Your task to perform on an android device: Go to Amazon Image 0: 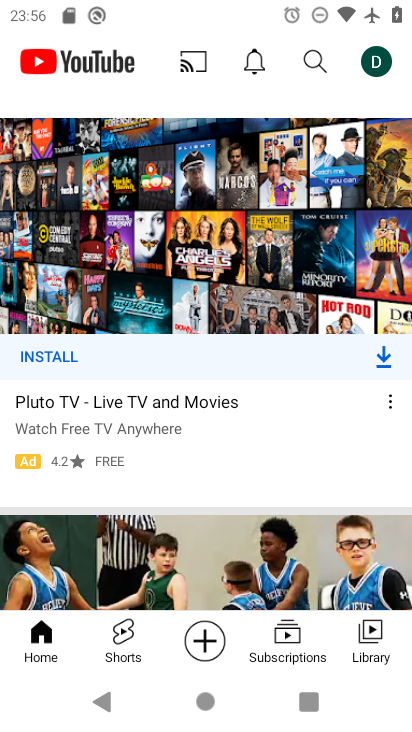
Step 0: press home button
Your task to perform on an android device: Go to Amazon Image 1: 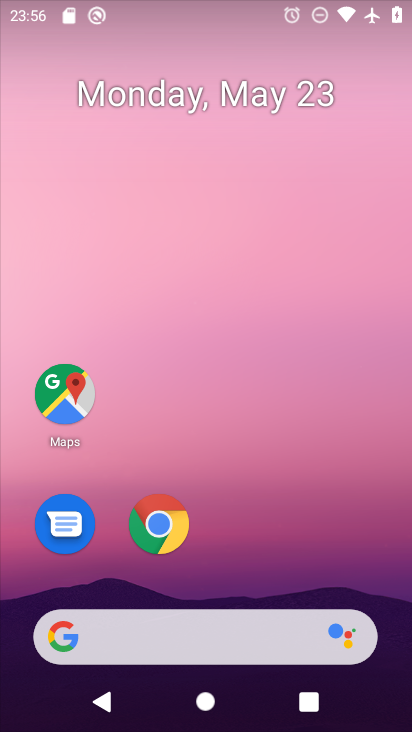
Step 1: click (165, 524)
Your task to perform on an android device: Go to Amazon Image 2: 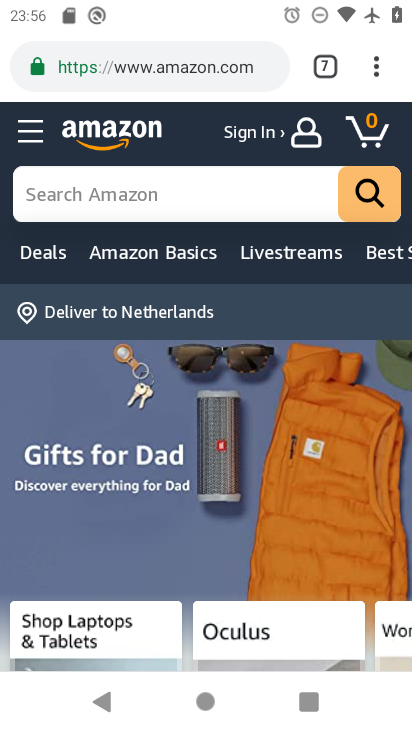
Step 2: task complete